Your task to perform on an android device: check data usage Image 0: 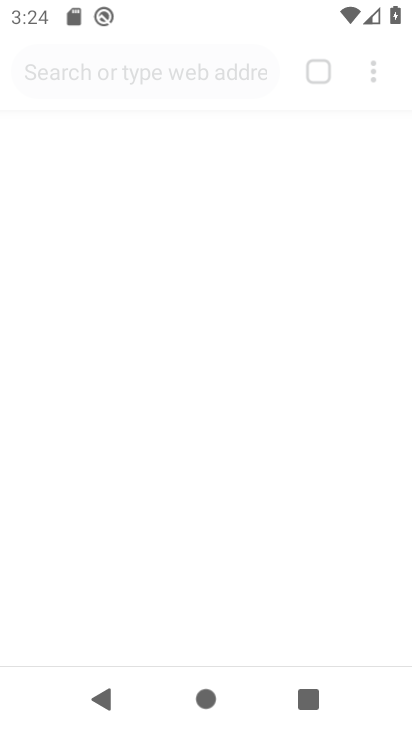
Step 0: drag from (272, 535) to (239, 14)
Your task to perform on an android device: check data usage Image 1: 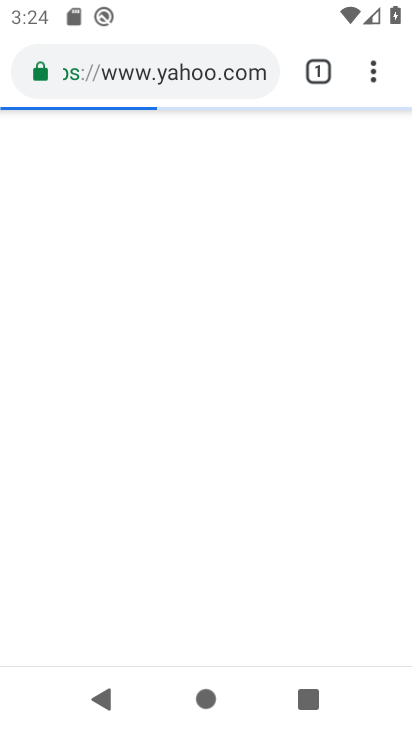
Step 1: press home button
Your task to perform on an android device: check data usage Image 2: 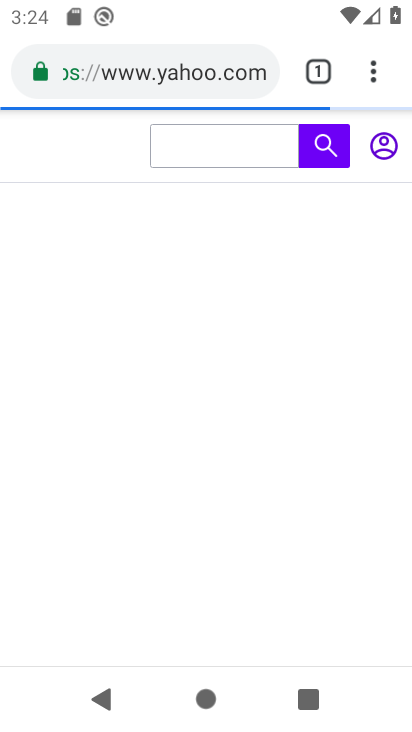
Step 2: drag from (239, 14) to (404, 329)
Your task to perform on an android device: check data usage Image 3: 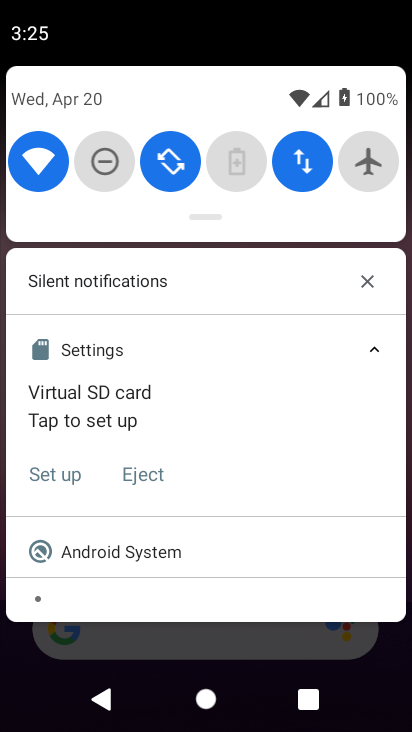
Step 3: press home button
Your task to perform on an android device: check data usage Image 4: 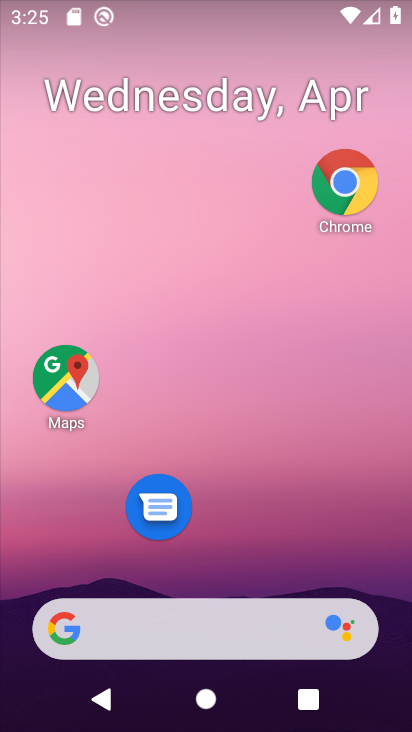
Step 4: drag from (221, 440) to (255, 2)
Your task to perform on an android device: check data usage Image 5: 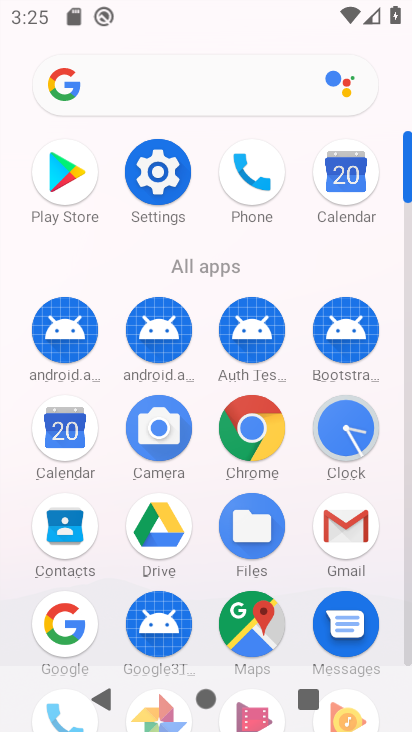
Step 5: click (154, 176)
Your task to perform on an android device: check data usage Image 6: 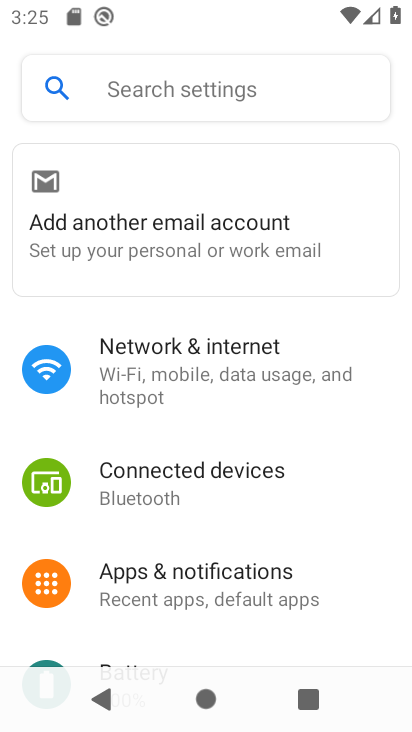
Step 6: drag from (179, 574) to (154, 626)
Your task to perform on an android device: check data usage Image 7: 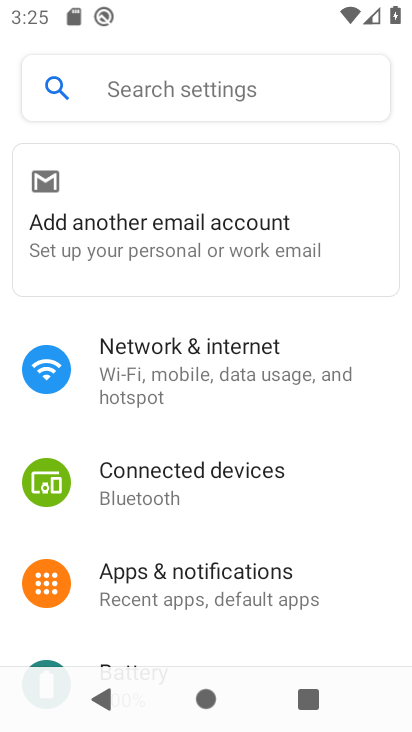
Step 7: click (158, 379)
Your task to perform on an android device: check data usage Image 8: 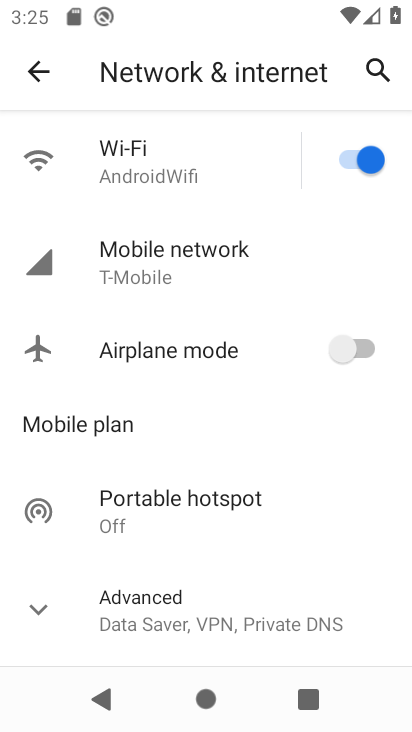
Step 8: click (154, 276)
Your task to perform on an android device: check data usage Image 9: 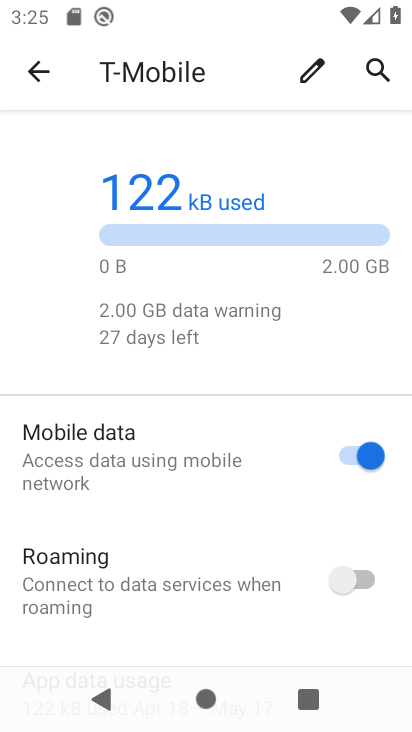
Step 9: drag from (205, 564) to (235, 228)
Your task to perform on an android device: check data usage Image 10: 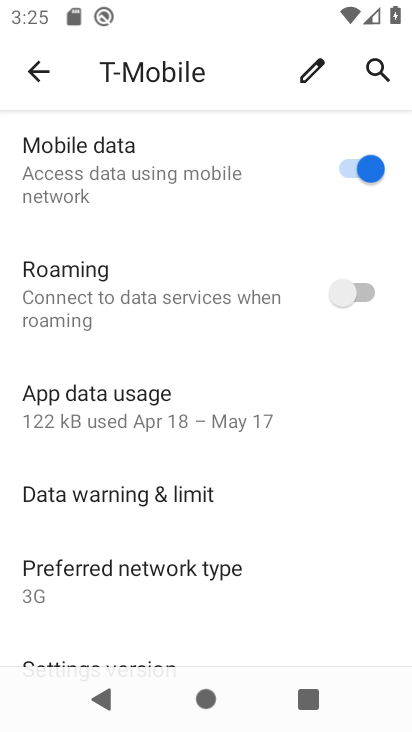
Step 10: click (114, 404)
Your task to perform on an android device: check data usage Image 11: 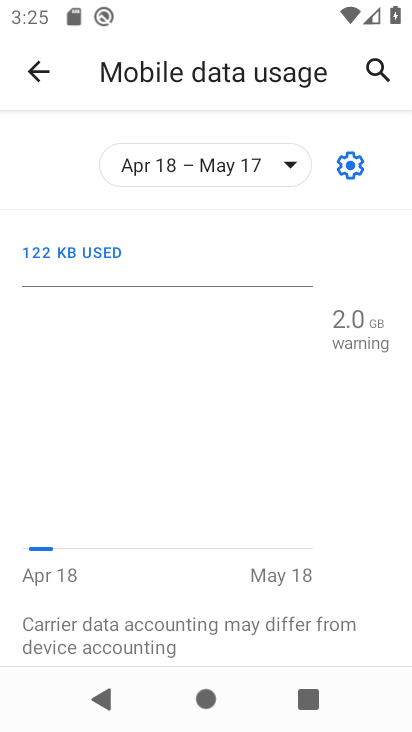
Step 11: task complete